Your task to perform on an android device: add a label to a message in the gmail app Image 0: 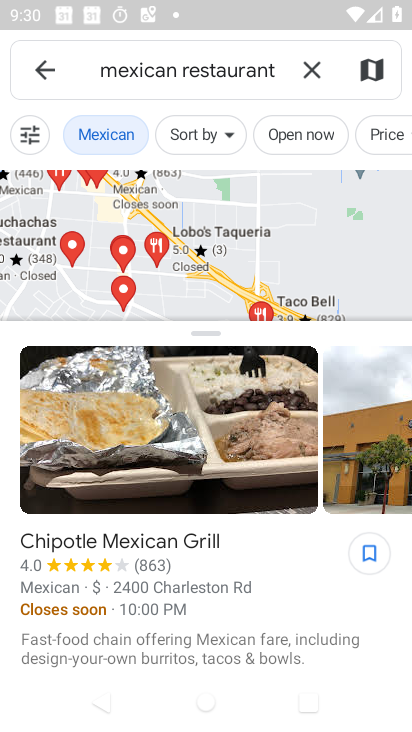
Step 0: press home button
Your task to perform on an android device: add a label to a message in the gmail app Image 1: 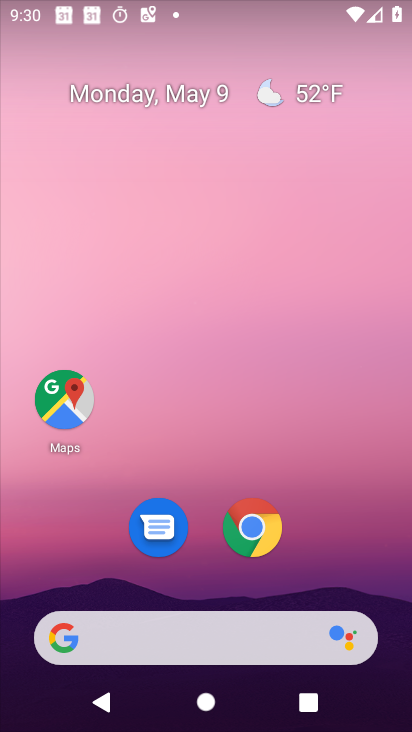
Step 1: drag from (357, 541) to (350, 109)
Your task to perform on an android device: add a label to a message in the gmail app Image 2: 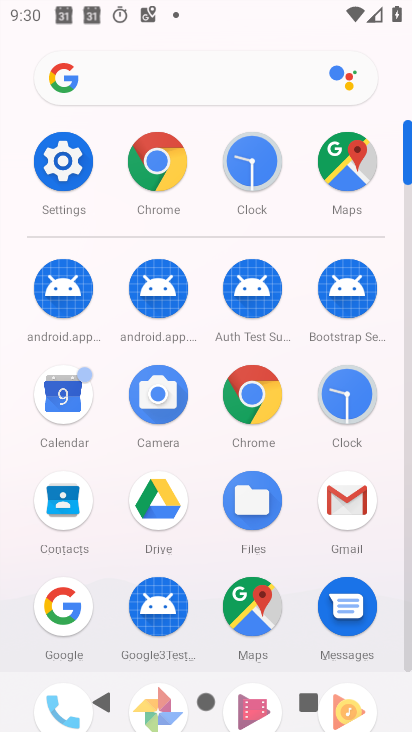
Step 2: click (348, 505)
Your task to perform on an android device: add a label to a message in the gmail app Image 3: 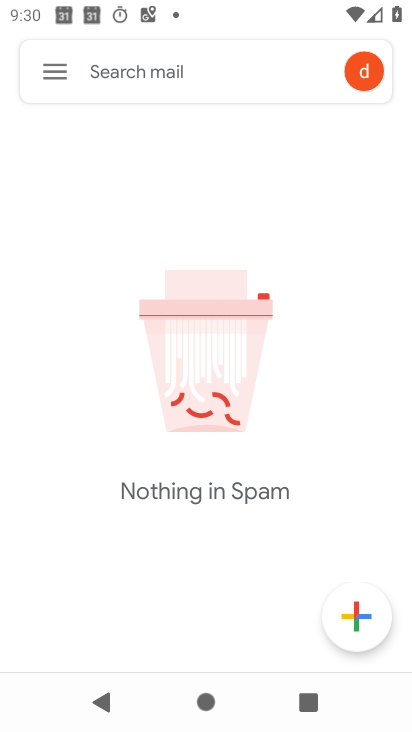
Step 3: click (67, 68)
Your task to perform on an android device: add a label to a message in the gmail app Image 4: 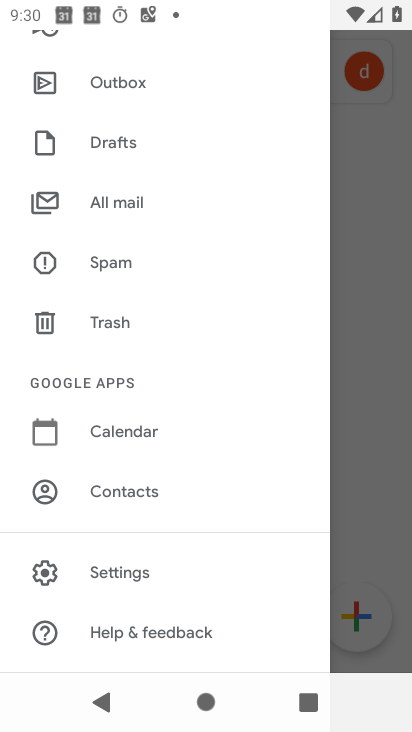
Step 4: click (172, 194)
Your task to perform on an android device: add a label to a message in the gmail app Image 5: 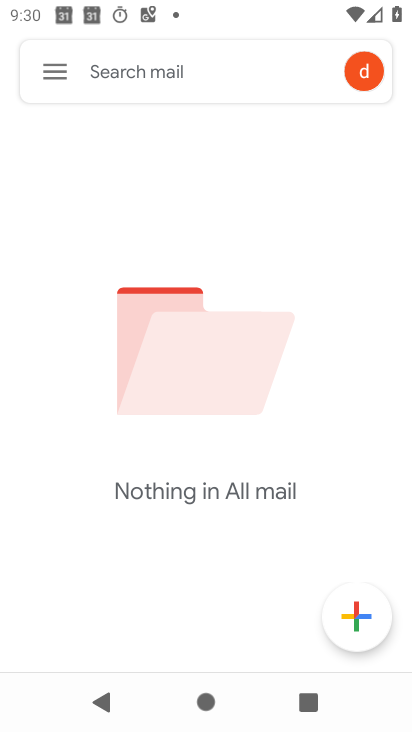
Step 5: task complete